Your task to perform on an android device: check battery use Image 0: 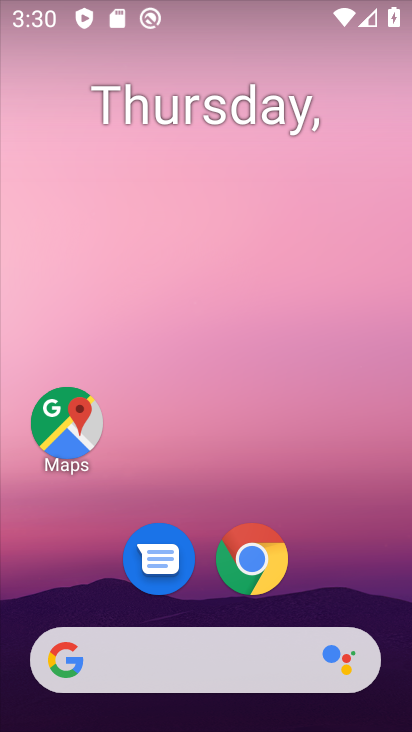
Step 0: drag from (340, 493) to (329, 180)
Your task to perform on an android device: check battery use Image 1: 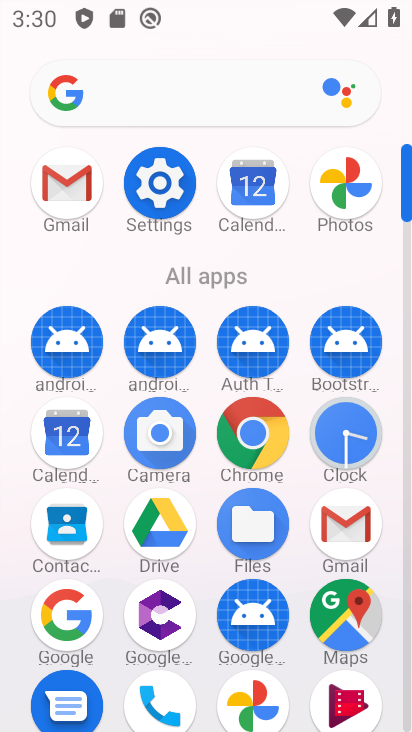
Step 1: click (172, 195)
Your task to perform on an android device: check battery use Image 2: 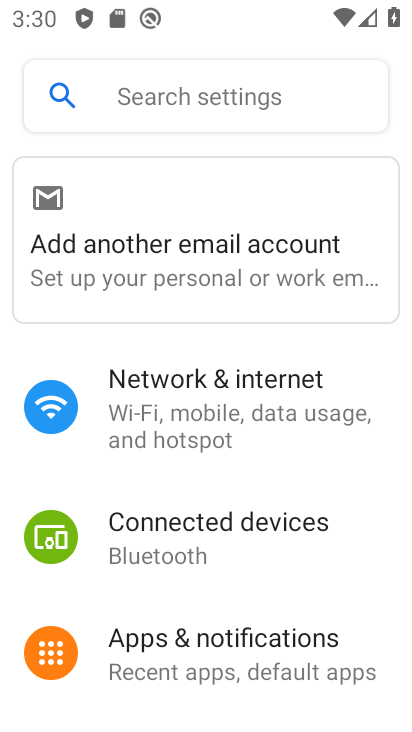
Step 2: drag from (183, 600) to (224, 250)
Your task to perform on an android device: check battery use Image 3: 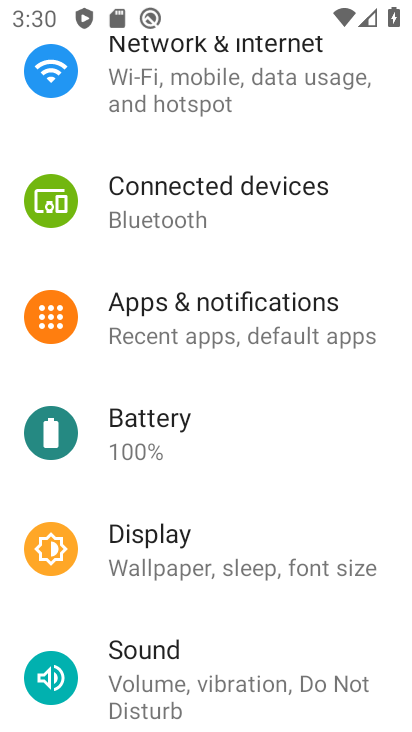
Step 3: click (176, 428)
Your task to perform on an android device: check battery use Image 4: 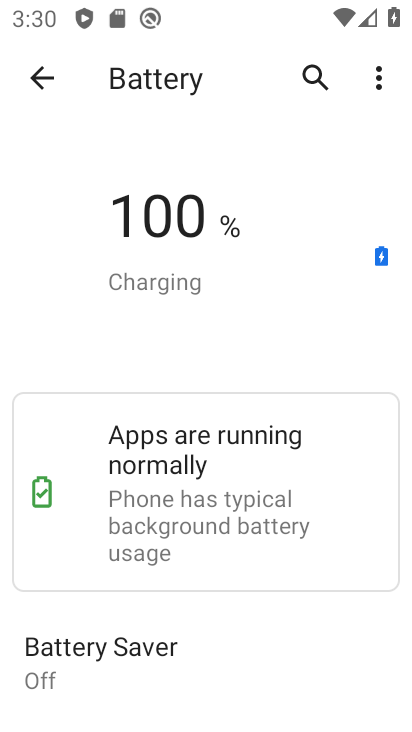
Step 4: task complete